Your task to perform on an android device: toggle notifications settings in the gmail app Image 0: 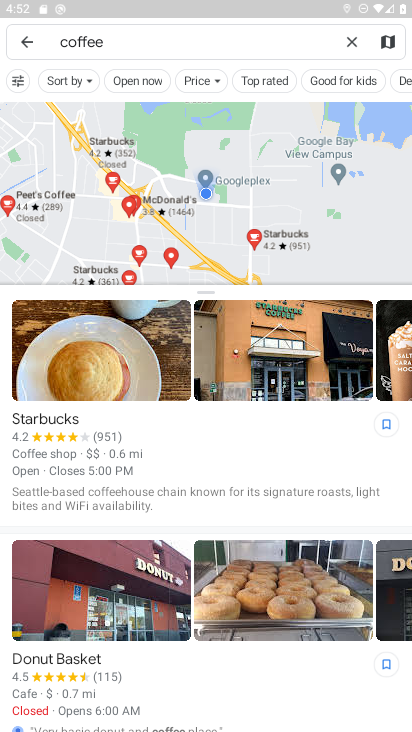
Step 0: press home button
Your task to perform on an android device: toggle notifications settings in the gmail app Image 1: 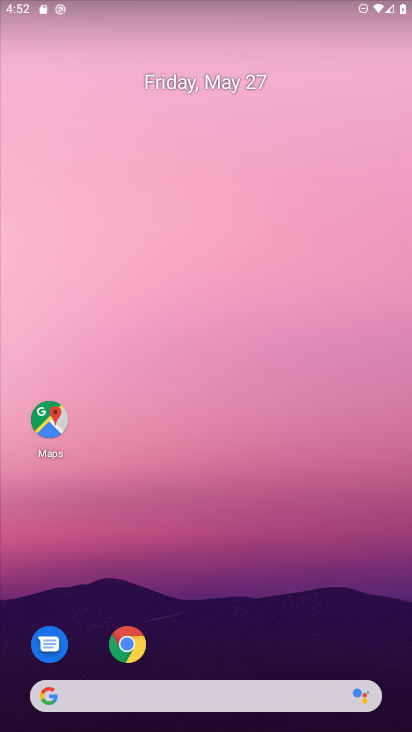
Step 1: drag from (179, 635) to (252, 125)
Your task to perform on an android device: toggle notifications settings in the gmail app Image 2: 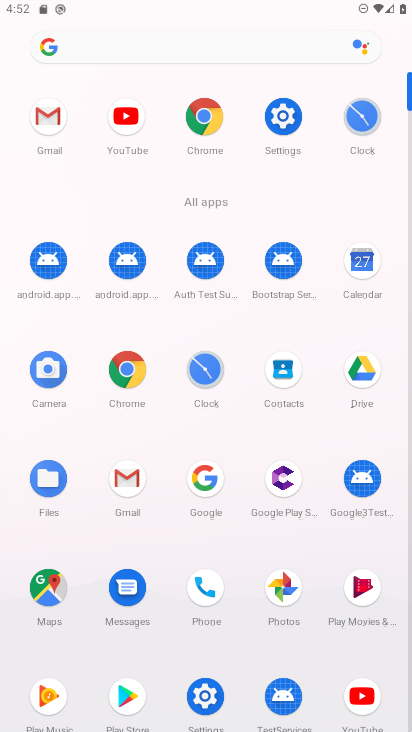
Step 2: click (37, 120)
Your task to perform on an android device: toggle notifications settings in the gmail app Image 3: 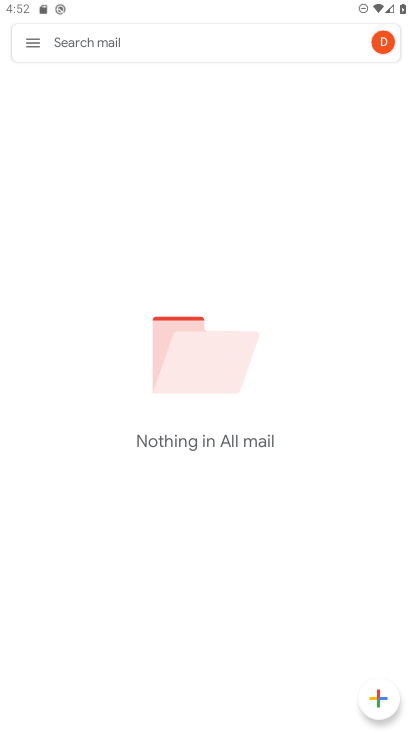
Step 3: click (28, 51)
Your task to perform on an android device: toggle notifications settings in the gmail app Image 4: 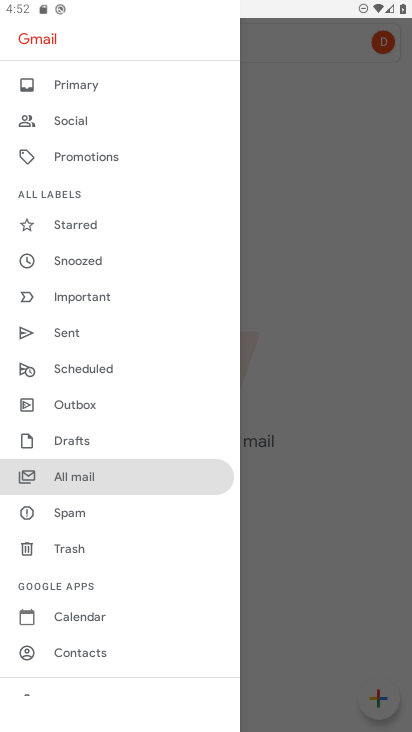
Step 4: drag from (107, 649) to (127, 374)
Your task to perform on an android device: toggle notifications settings in the gmail app Image 5: 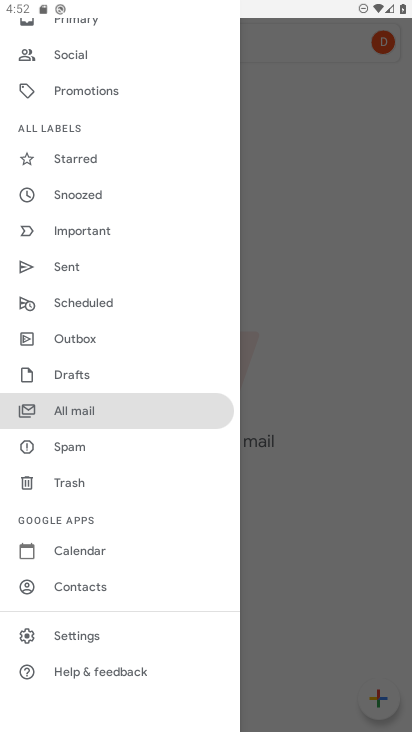
Step 5: click (100, 638)
Your task to perform on an android device: toggle notifications settings in the gmail app Image 6: 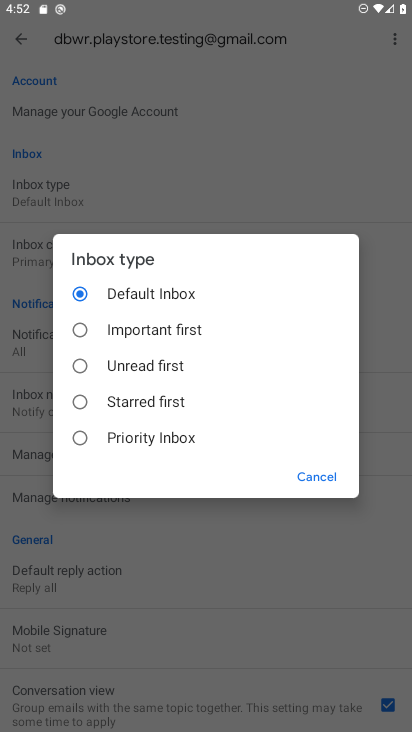
Step 6: click (304, 488)
Your task to perform on an android device: toggle notifications settings in the gmail app Image 7: 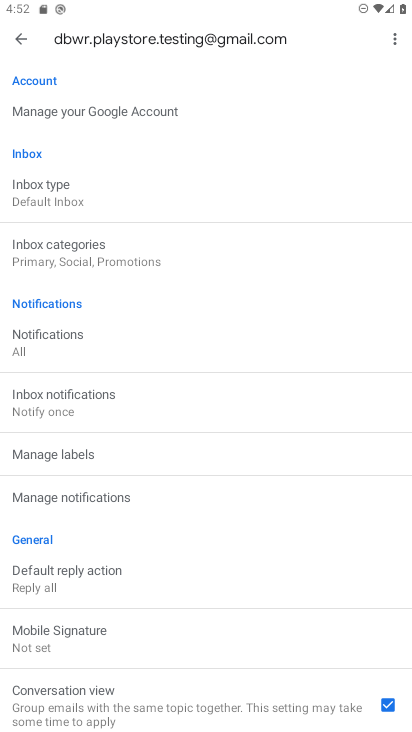
Step 7: click (63, 331)
Your task to perform on an android device: toggle notifications settings in the gmail app Image 8: 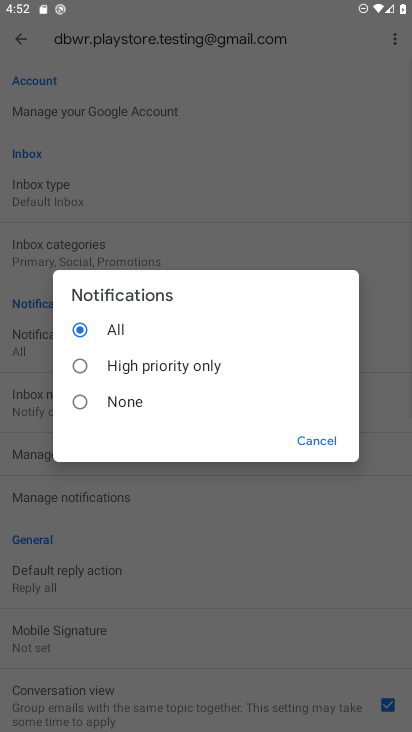
Step 8: click (141, 357)
Your task to perform on an android device: toggle notifications settings in the gmail app Image 9: 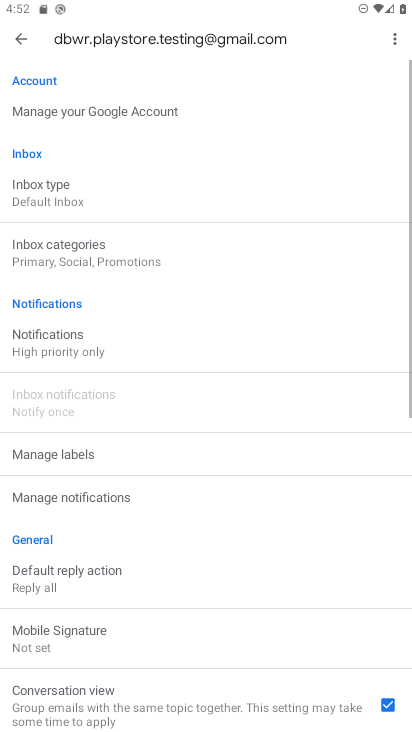
Step 9: task complete